Your task to perform on an android device: Open my contact list Image 0: 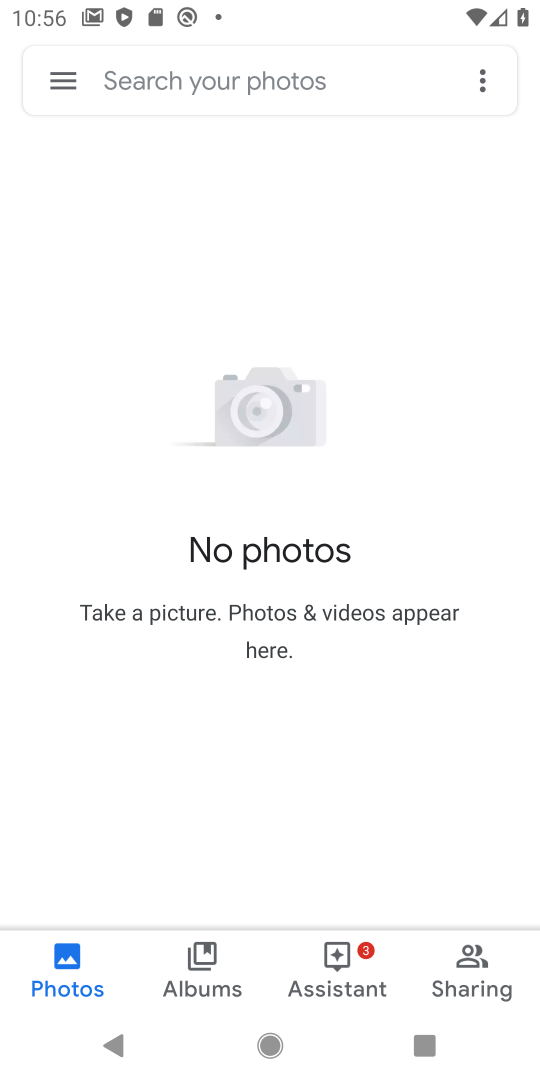
Step 0: click (261, 1054)
Your task to perform on an android device: Open my contact list Image 1: 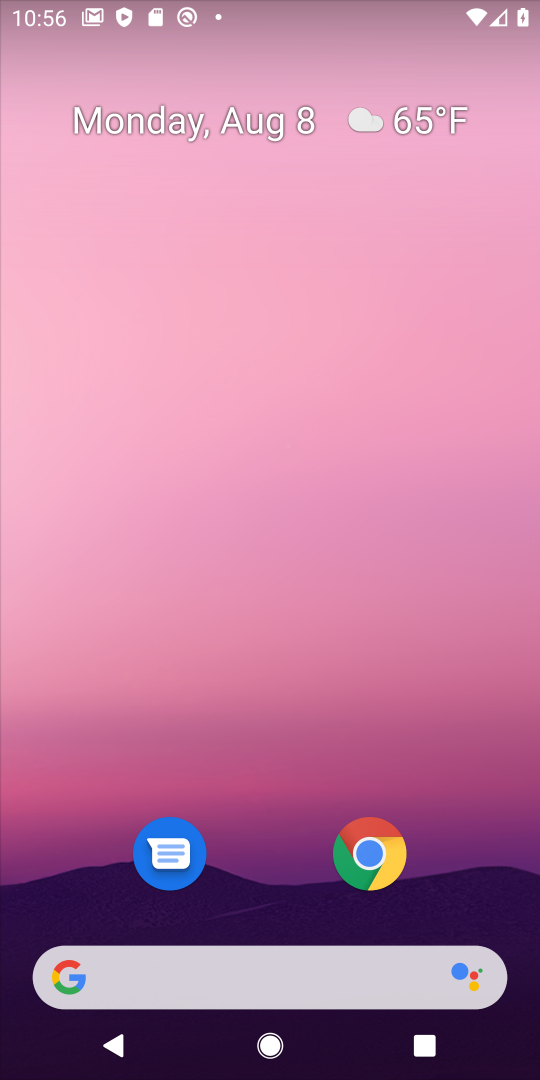
Step 1: drag from (241, 878) to (80, 34)
Your task to perform on an android device: Open my contact list Image 2: 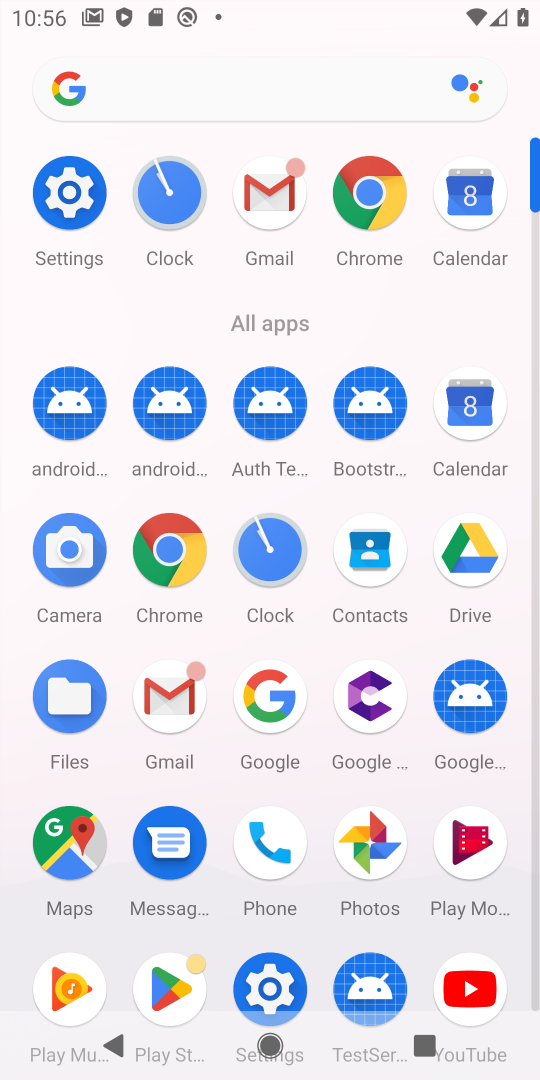
Step 2: click (252, 843)
Your task to perform on an android device: Open my contact list Image 3: 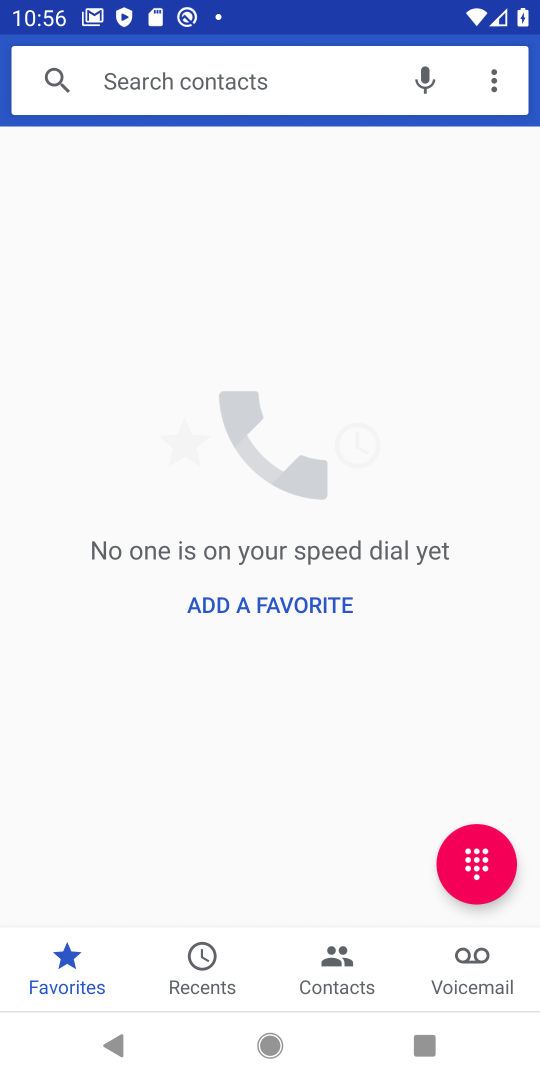
Step 3: click (329, 968)
Your task to perform on an android device: Open my contact list Image 4: 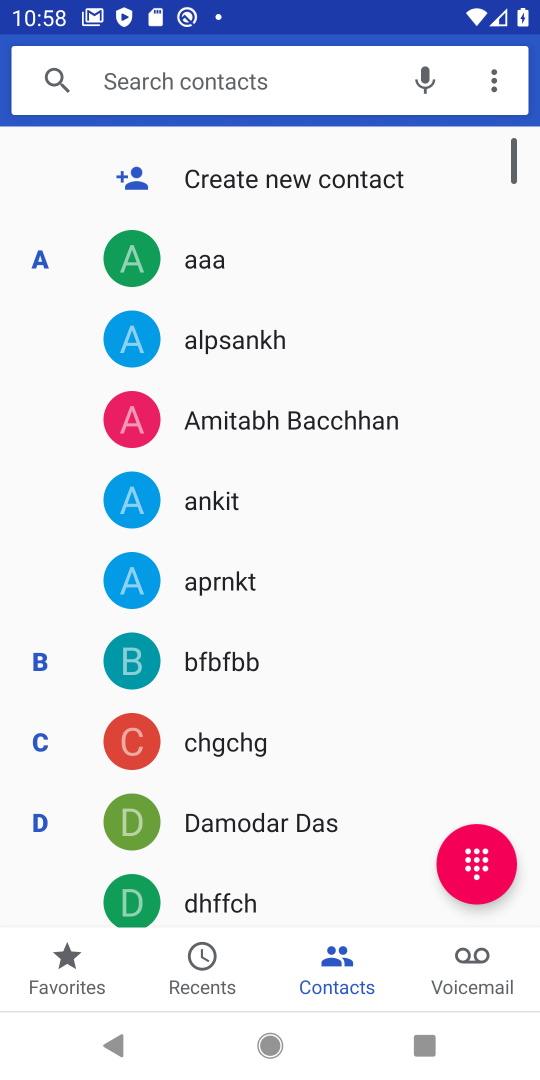
Step 4: task complete